Your task to perform on an android device: Open Google Chrome and open the bookmarks view Image 0: 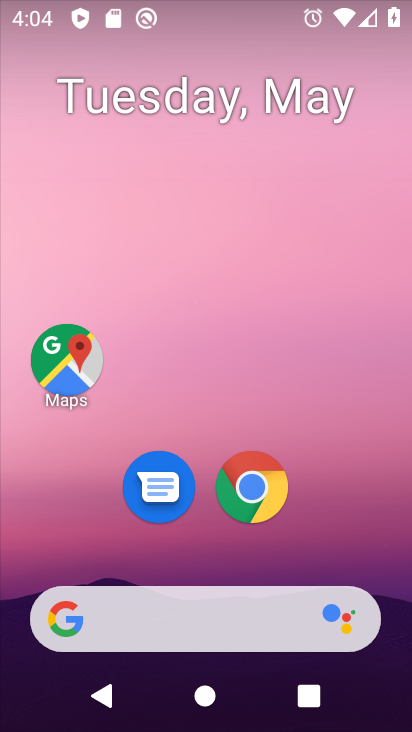
Step 0: click (263, 485)
Your task to perform on an android device: Open Google Chrome and open the bookmarks view Image 1: 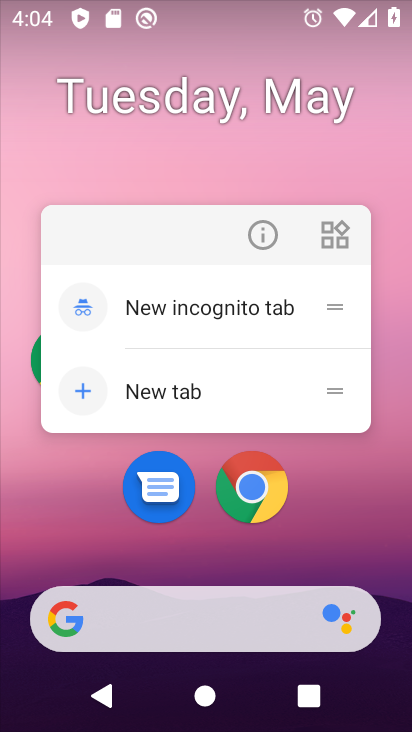
Step 1: click (260, 485)
Your task to perform on an android device: Open Google Chrome and open the bookmarks view Image 2: 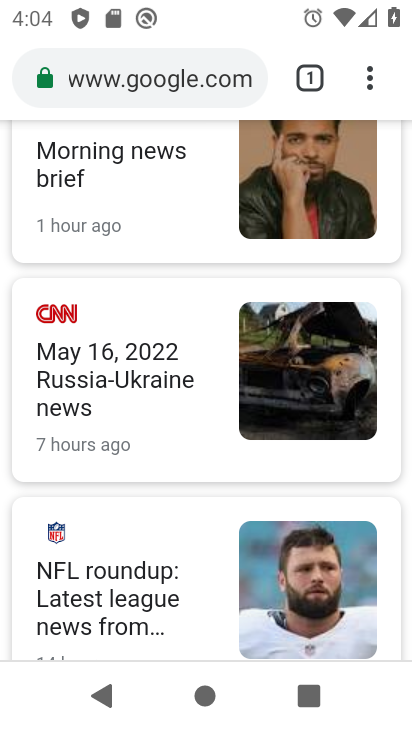
Step 2: task complete